Your task to perform on an android device: open app "YouTube Kids" (install if not already installed) Image 0: 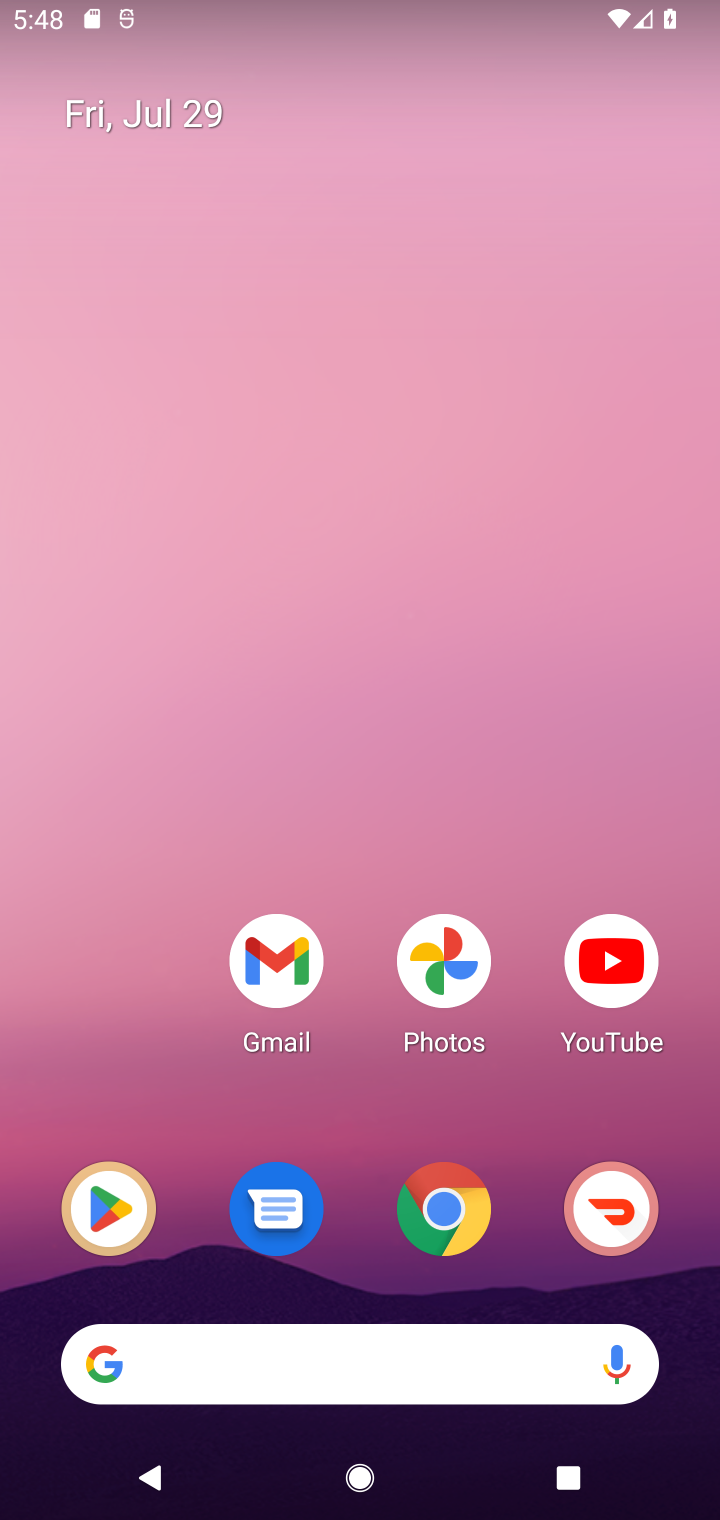
Step 0: click (100, 1219)
Your task to perform on an android device: open app "YouTube Kids" (install if not already installed) Image 1: 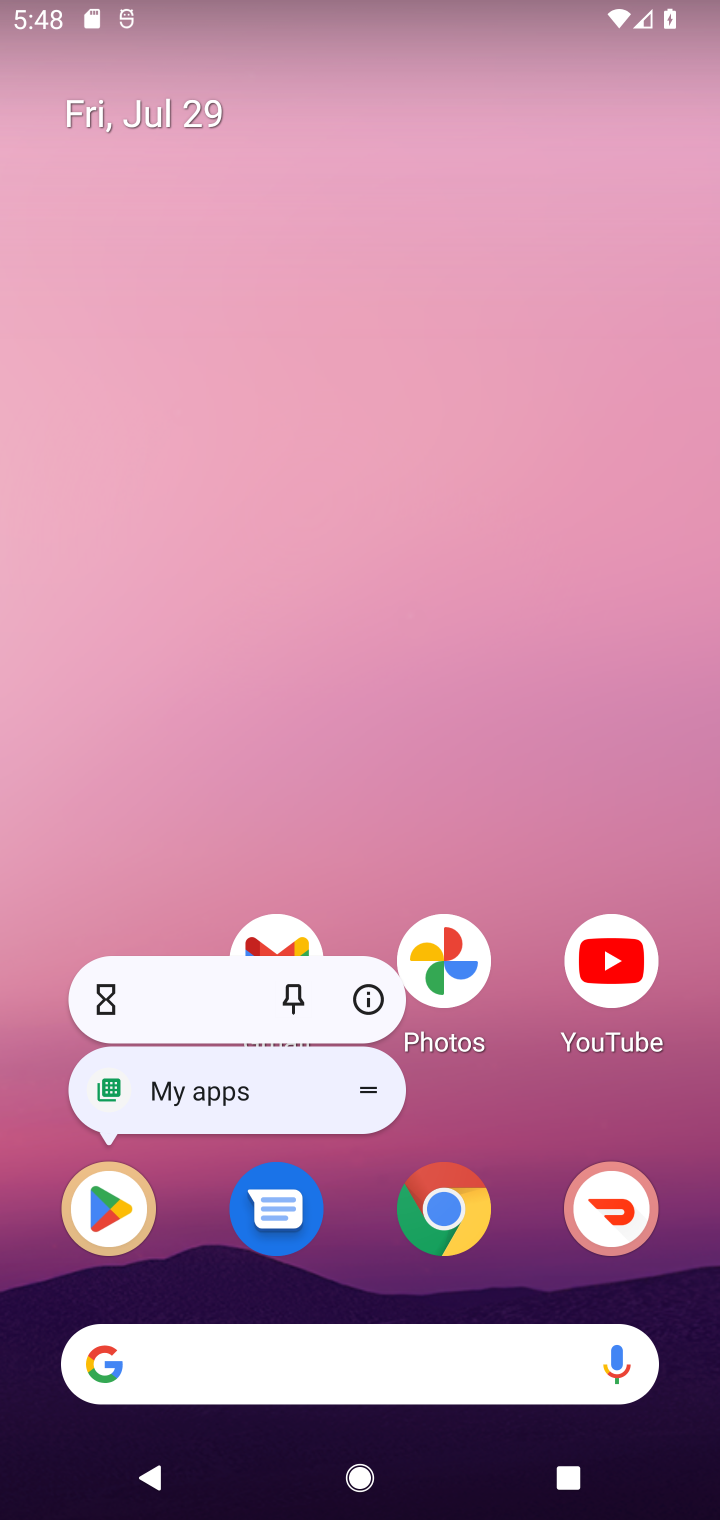
Step 1: click (100, 1219)
Your task to perform on an android device: open app "YouTube Kids" (install if not already installed) Image 2: 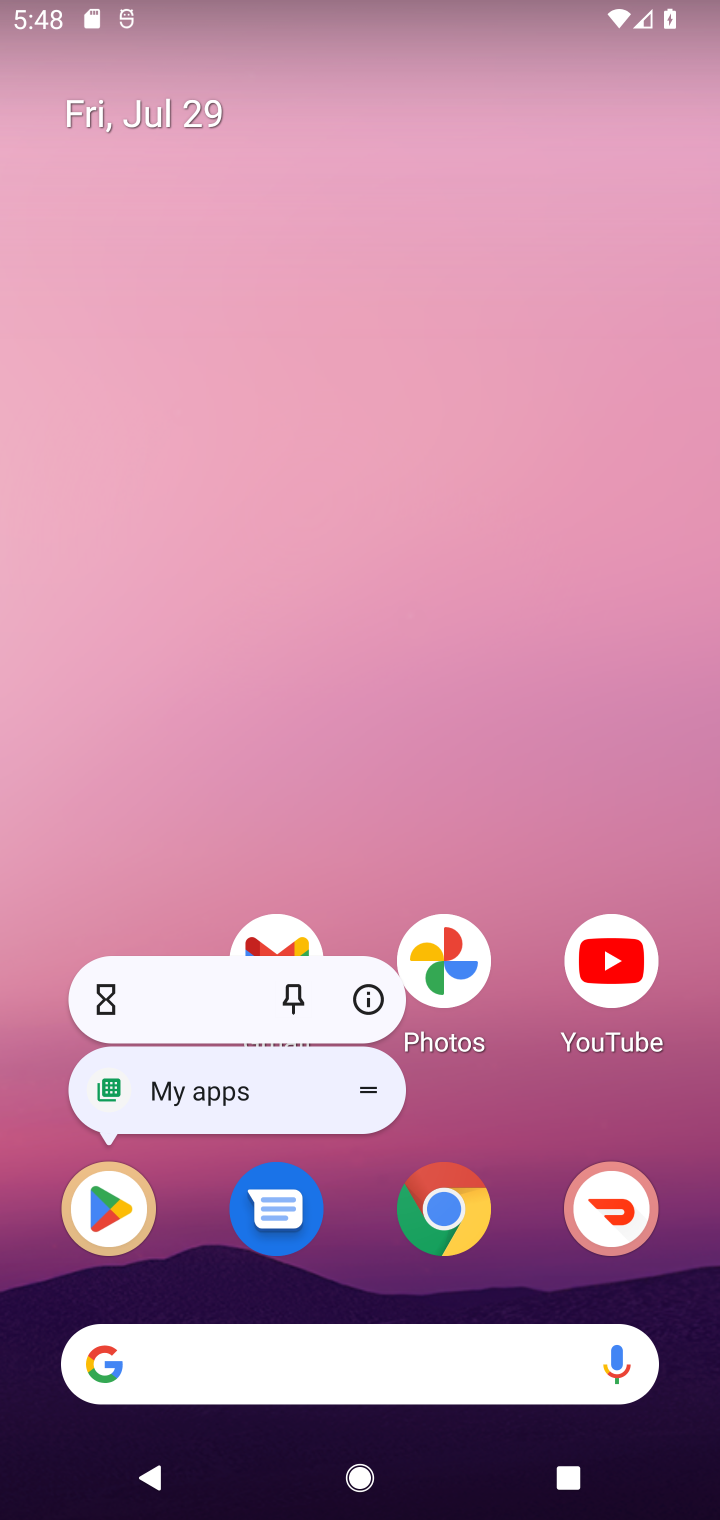
Step 2: click (100, 1219)
Your task to perform on an android device: open app "YouTube Kids" (install if not already installed) Image 3: 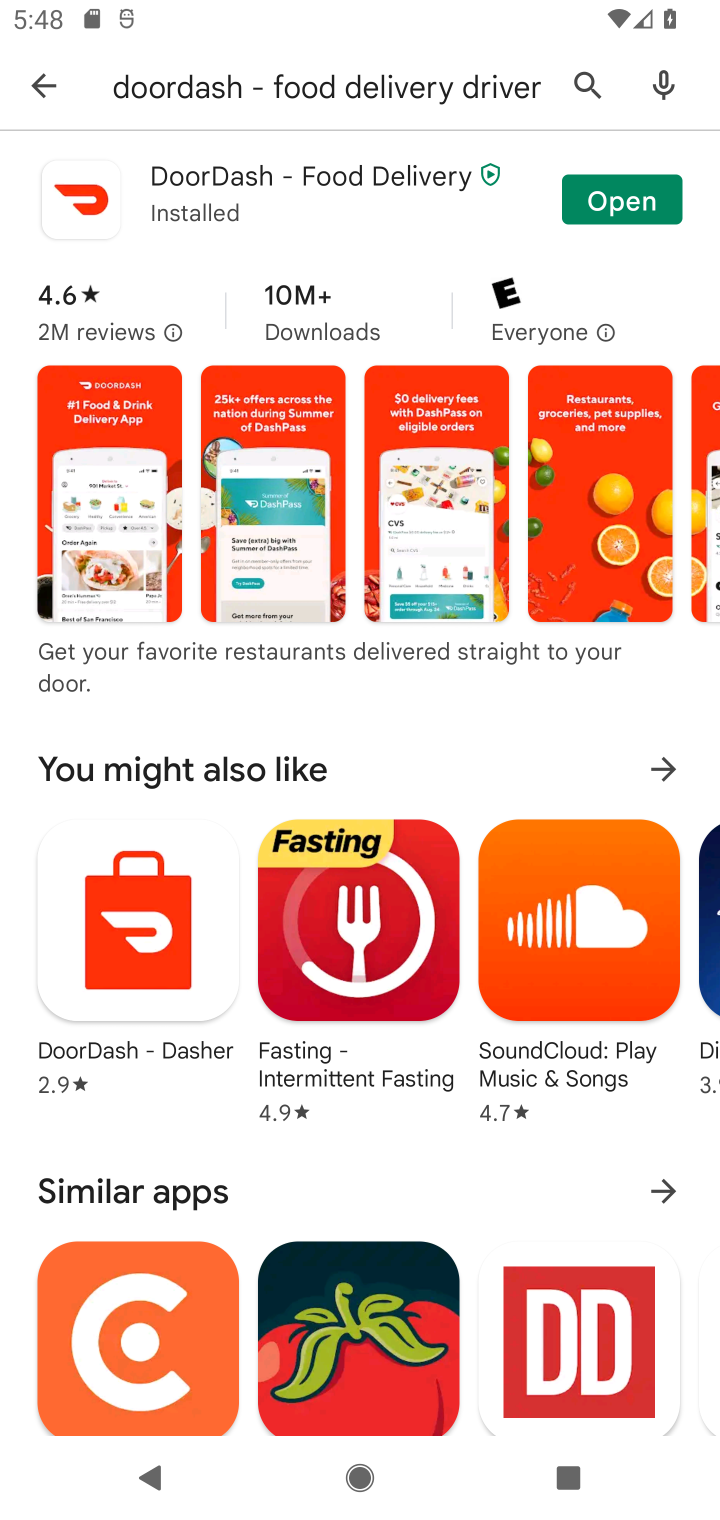
Step 3: click (571, 83)
Your task to perform on an android device: open app "YouTube Kids" (install if not already installed) Image 4: 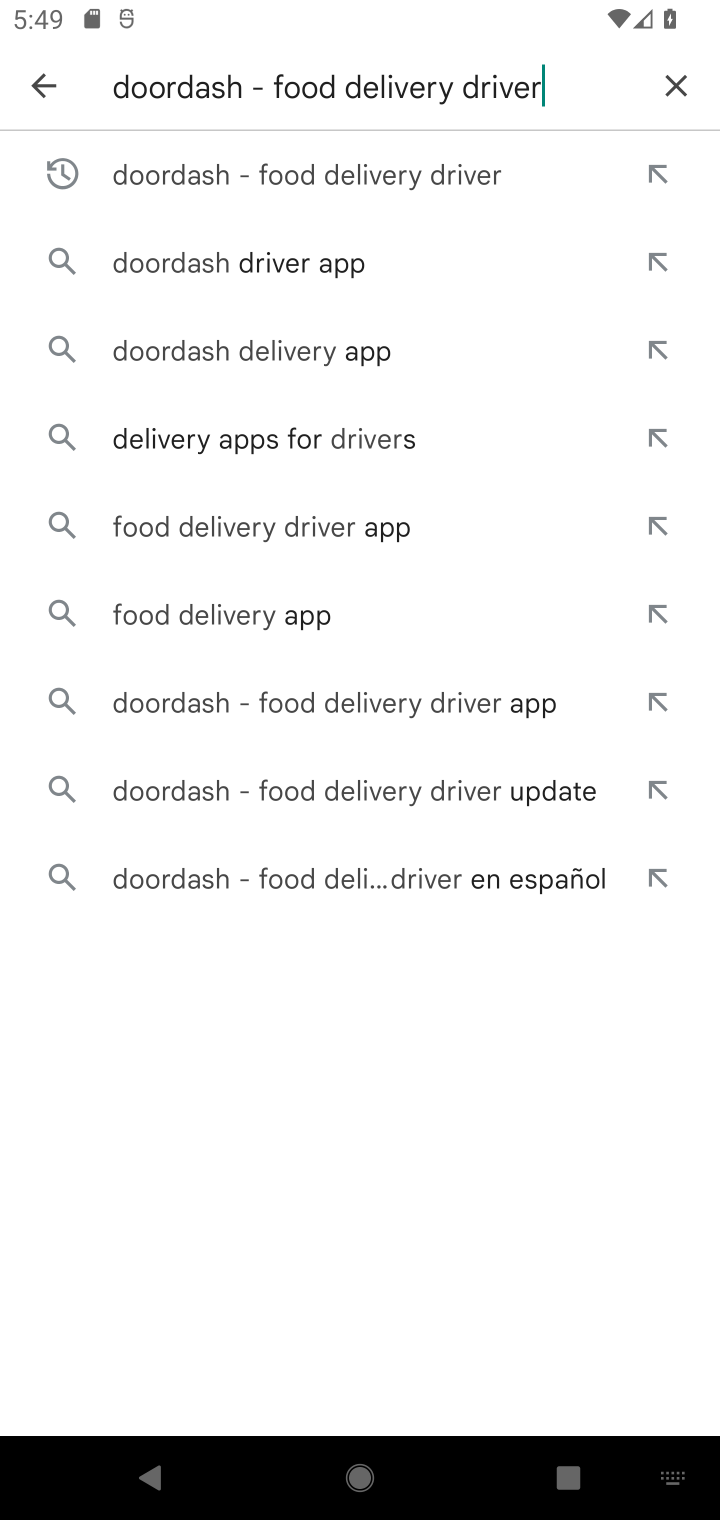
Step 4: click (676, 91)
Your task to perform on an android device: open app "YouTube Kids" (install if not already installed) Image 5: 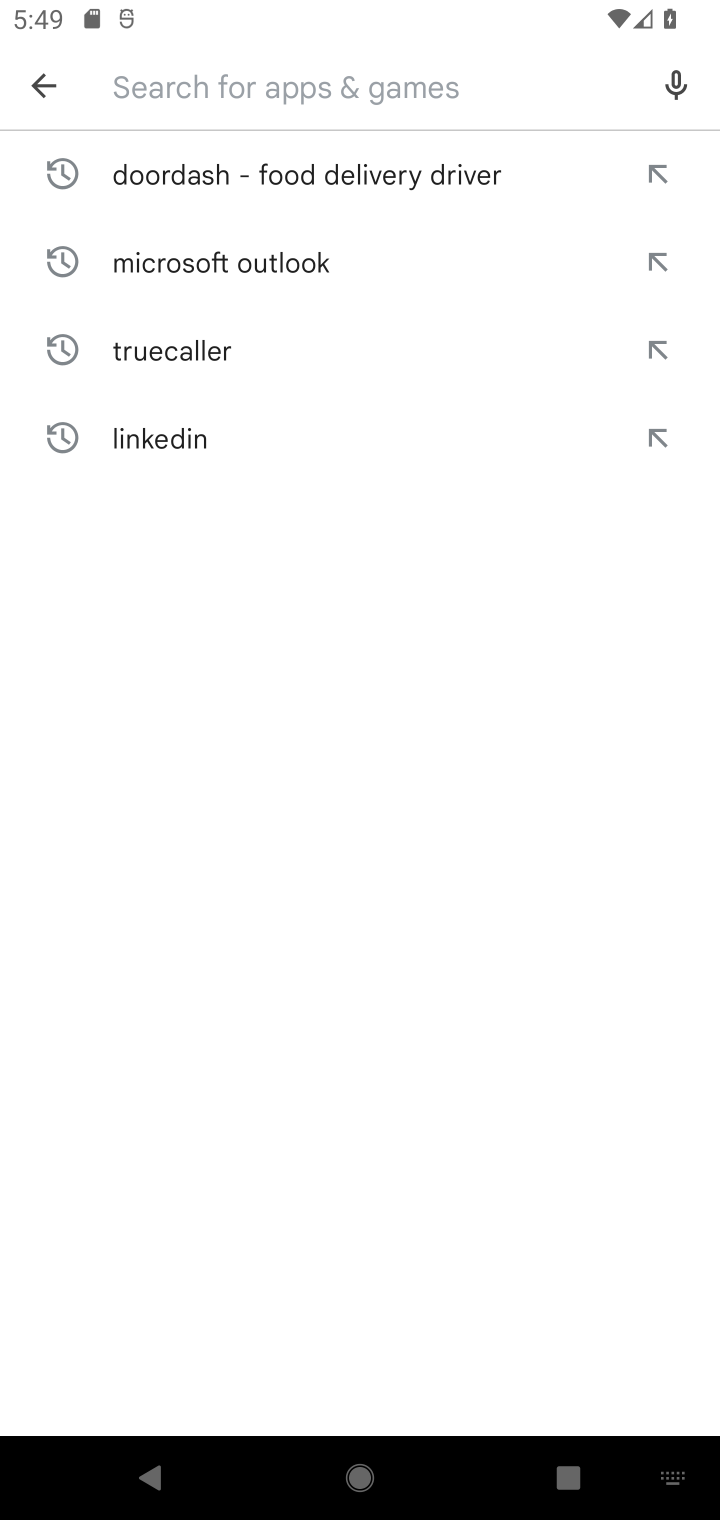
Step 5: type "YouTube Kids"
Your task to perform on an android device: open app "YouTube Kids" (install if not already installed) Image 6: 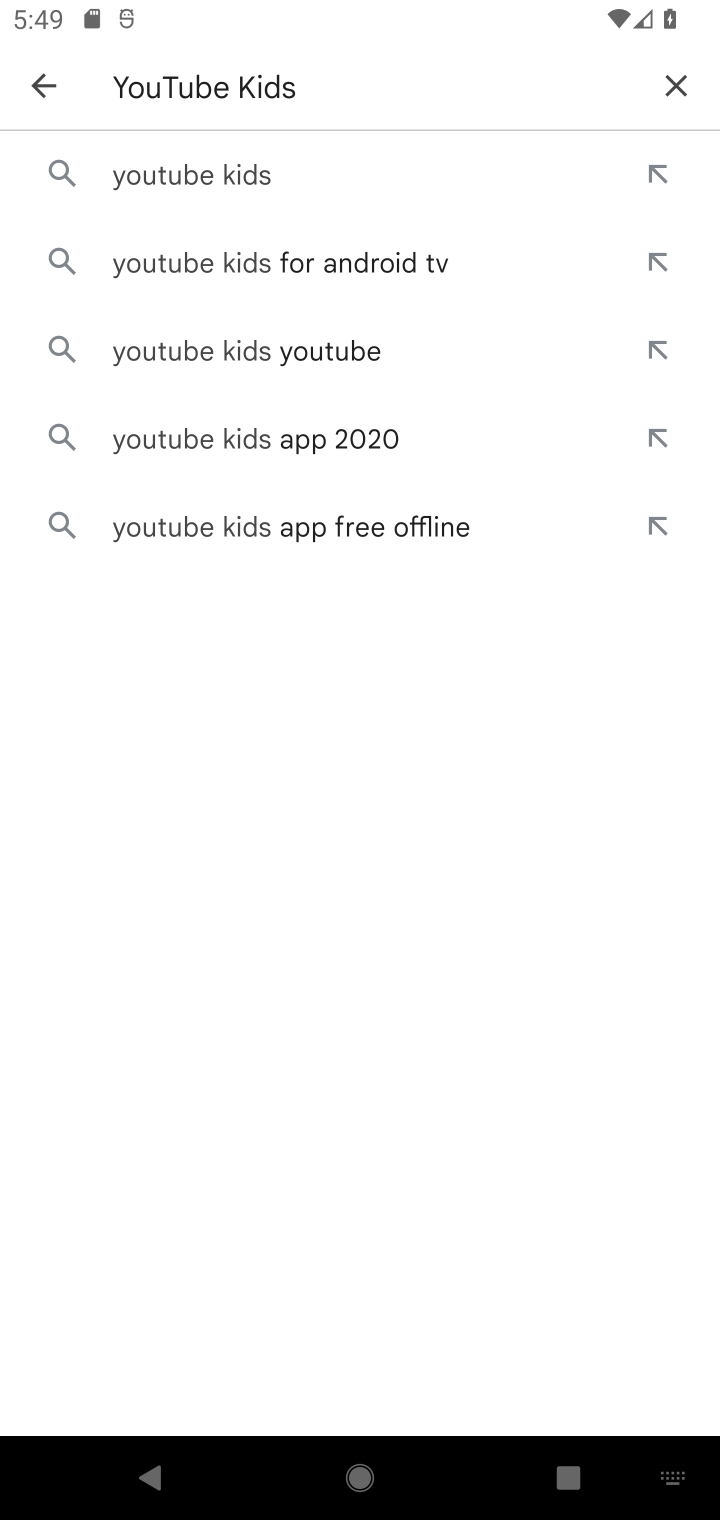
Step 6: click (207, 197)
Your task to perform on an android device: open app "YouTube Kids" (install if not already installed) Image 7: 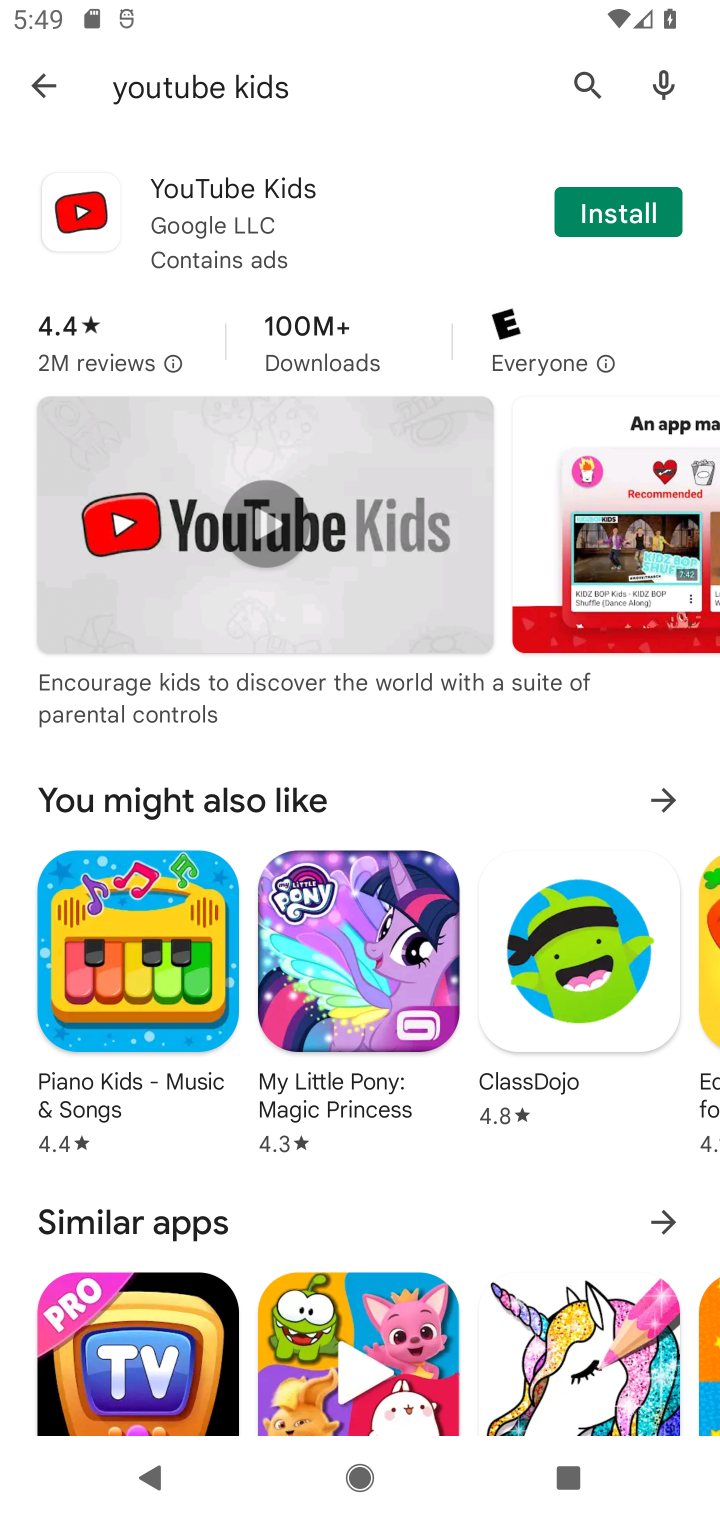
Step 7: click (600, 227)
Your task to perform on an android device: open app "YouTube Kids" (install if not already installed) Image 8: 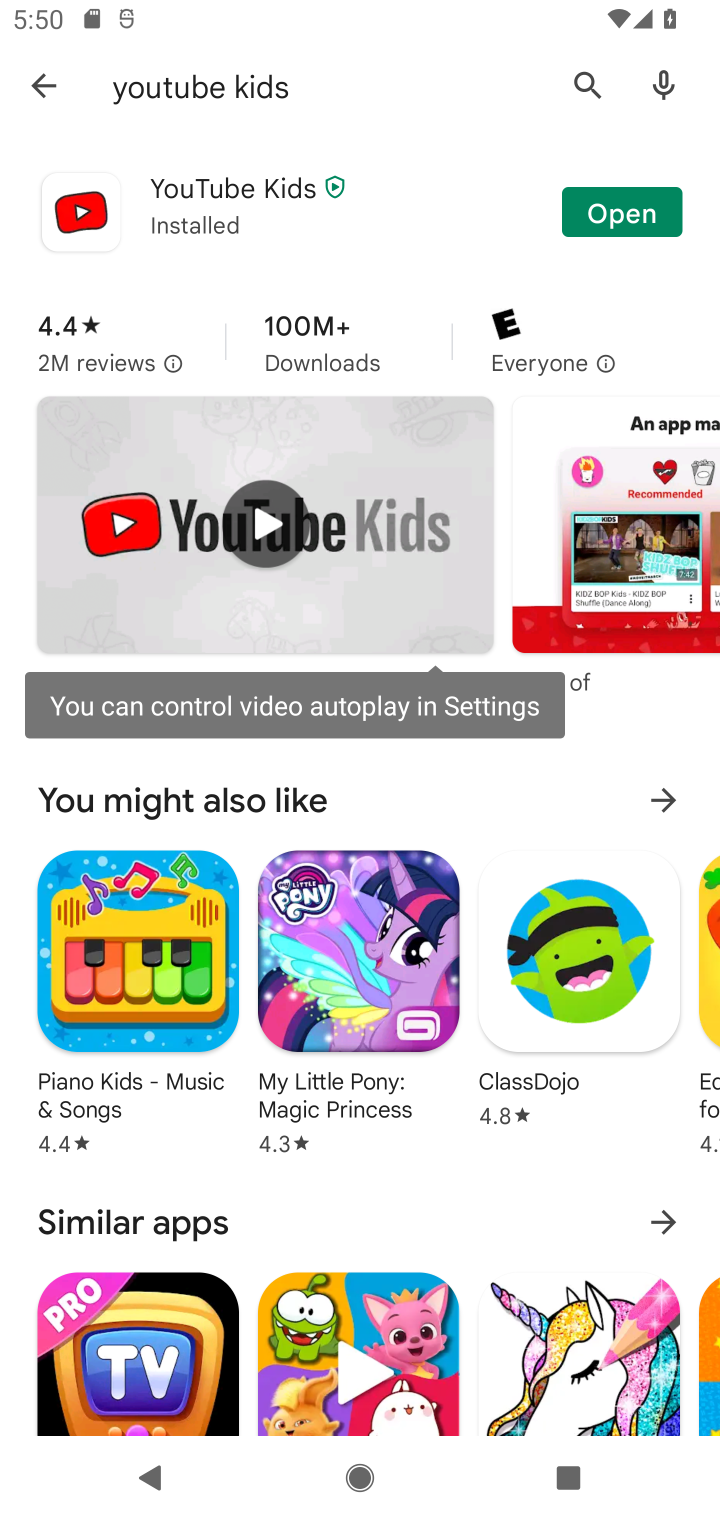
Step 8: click (633, 207)
Your task to perform on an android device: open app "YouTube Kids" (install if not already installed) Image 9: 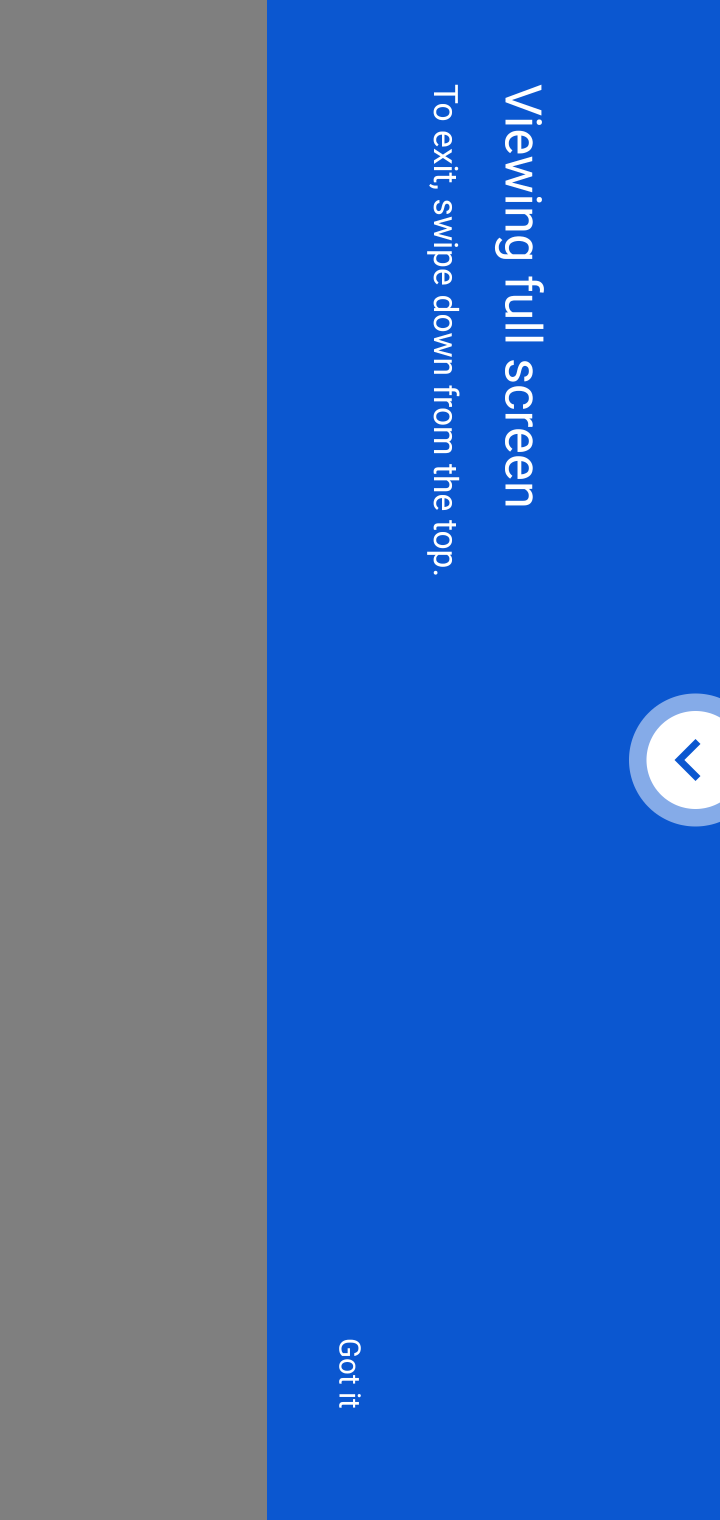
Step 9: task complete